Your task to perform on an android device: check out phone information Image 0: 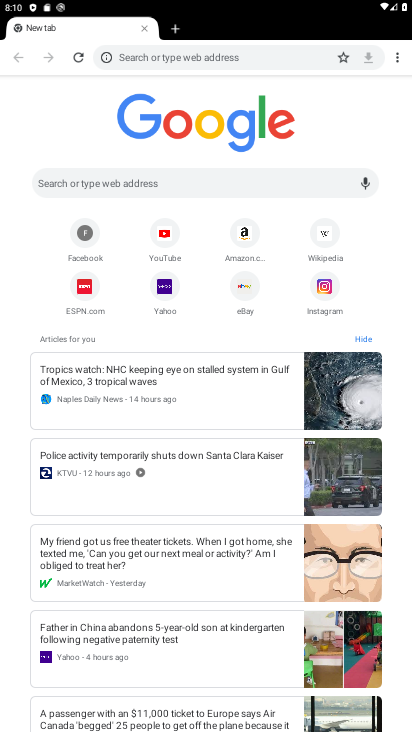
Step 0: drag from (328, 632) to (301, 432)
Your task to perform on an android device: check out phone information Image 1: 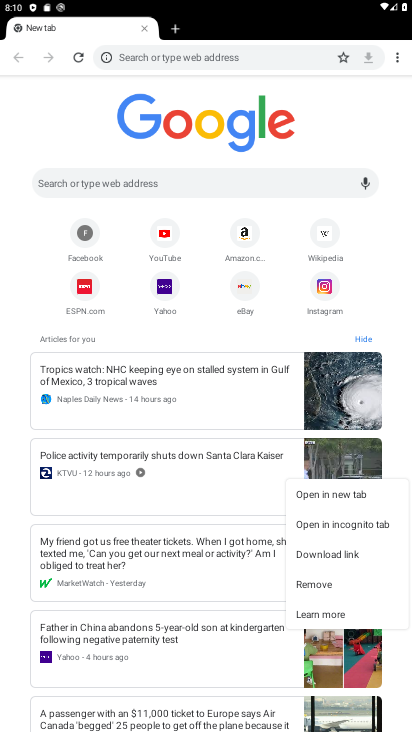
Step 1: press home button
Your task to perform on an android device: check out phone information Image 2: 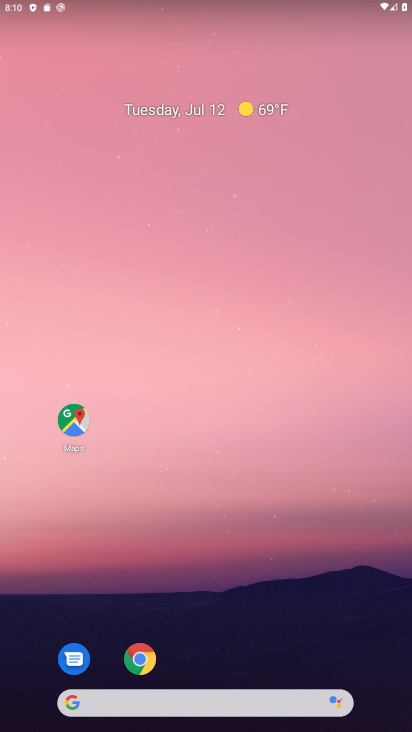
Step 2: drag from (373, 638) to (270, 144)
Your task to perform on an android device: check out phone information Image 3: 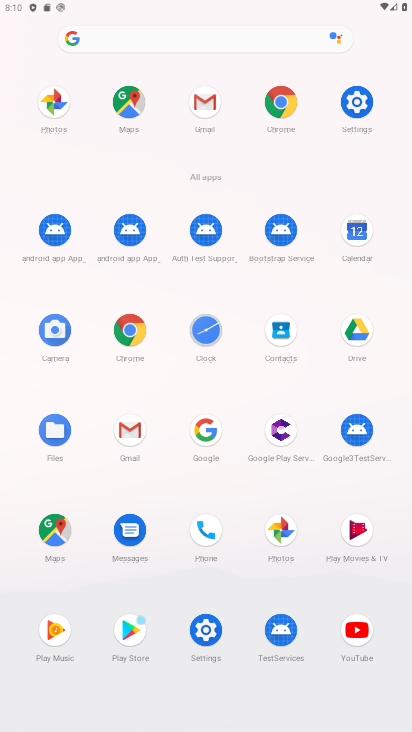
Step 3: click (365, 103)
Your task to perform on an android device: check out phone information Image 4: 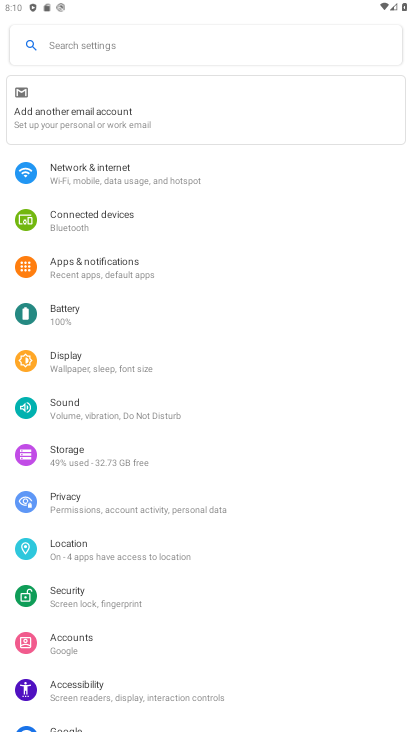
Step 4: drag from (200, 702) to (97, 242)
Your task to perform on an android device: check out phone information Image 5: 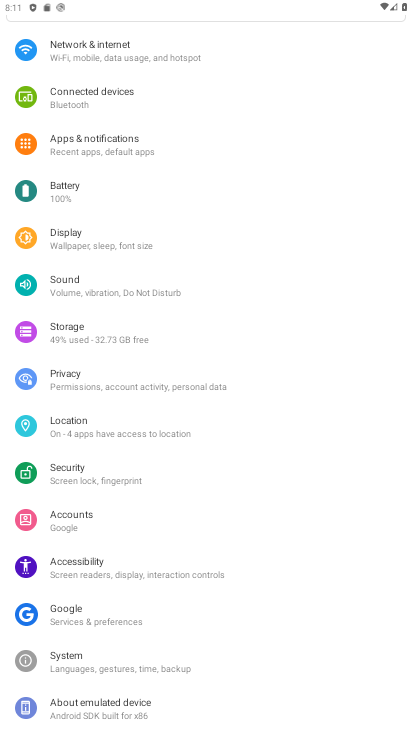
Step 5: click (205, 695)
Your task to perform on an android device: check out phone information Image 6: 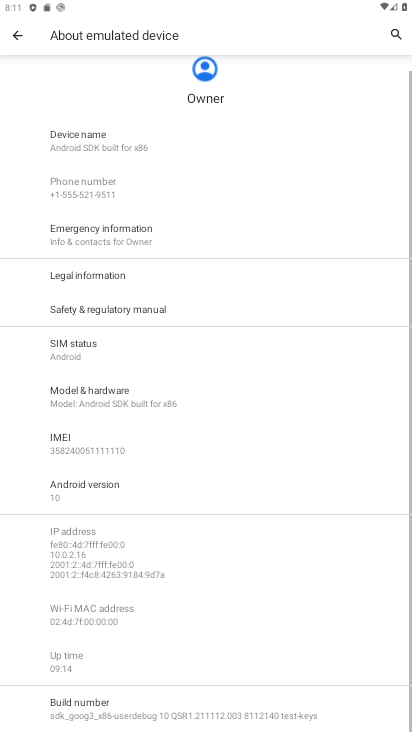
Step 6: task complete